Your task to perform on an android device: turn off airplane mode Image 0: 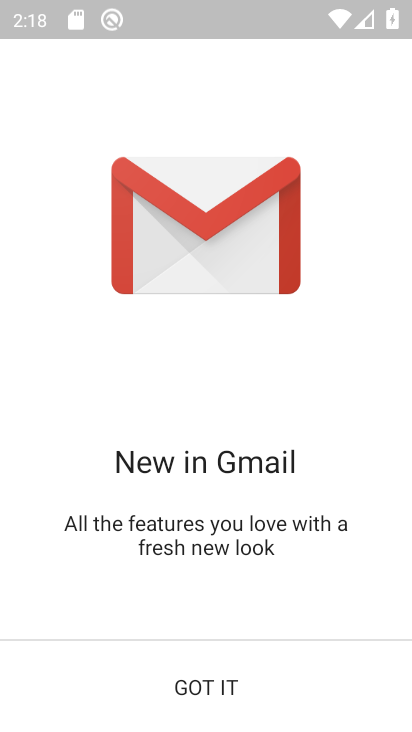
Step 0: click (194, 684)
Your task to perform on an android device: turn off airplane mode Image 1: 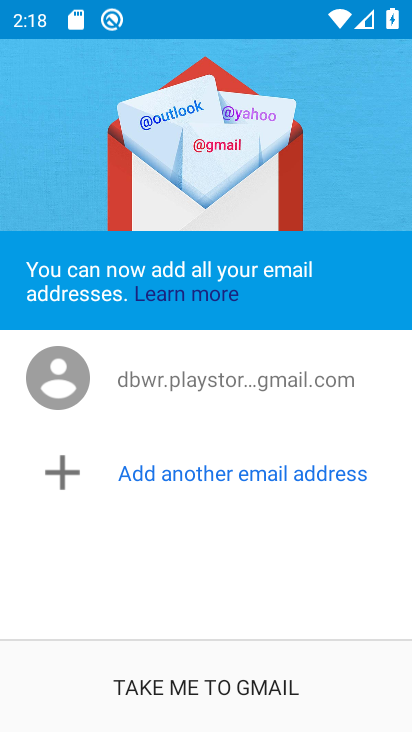
Step 1: click (194, 685)
Your task to perform on an android device: turn off airplane mode Image 2: 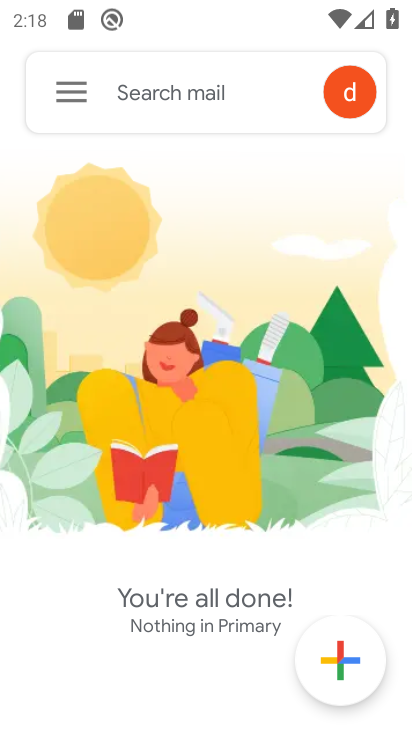
Step 2: press home button
Your task to perform on an android device: turn off airplane mode Image 3: 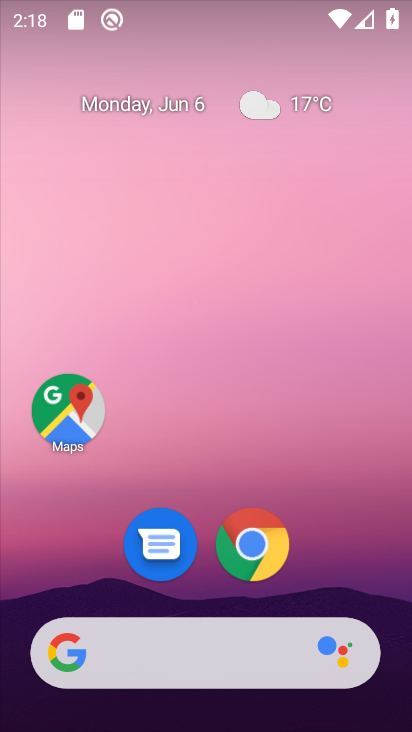
Step 3: drag from (364, 484) to (298, 63)
Your task to perform on an android device: turn off airplane mode Image 4: 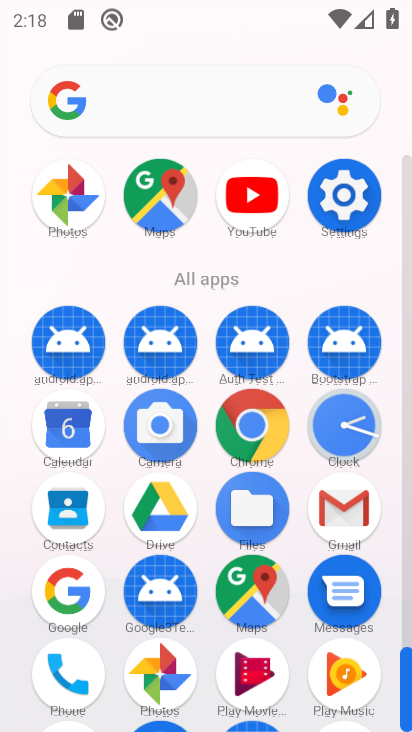
Step 4: click (347, 192)
Your task to perform on an android device: turn off airplane mode Image 5: 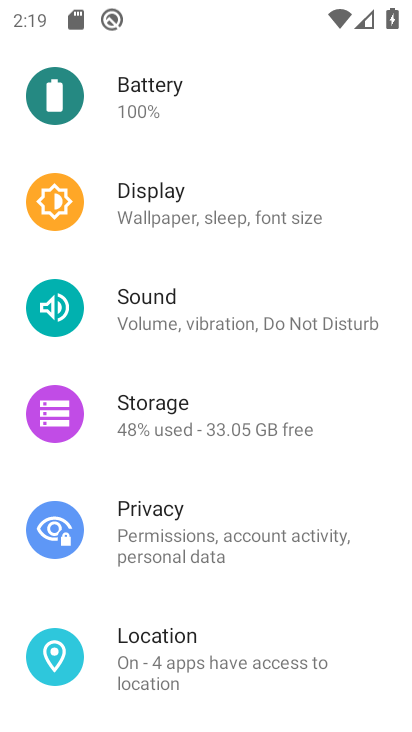
Step 5: drag from (266, 262) to (261, 686)
Your task to perform on an android device: turn off airplane mode Image 6: 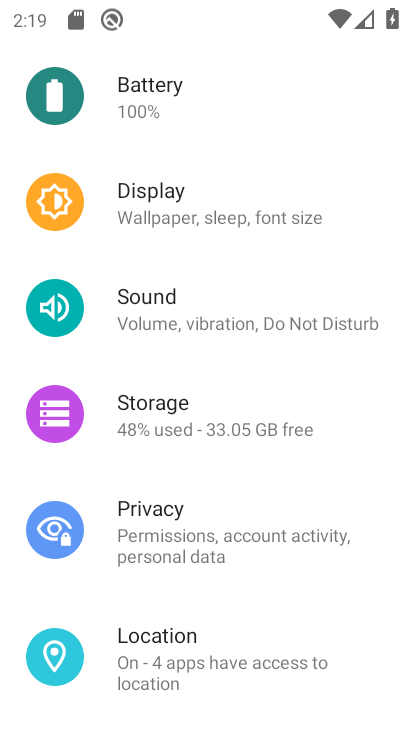
Step 6: drag from (297, 127) to (319, 660)
Your task to perform on an android device: turn off airplane mode Image 7: 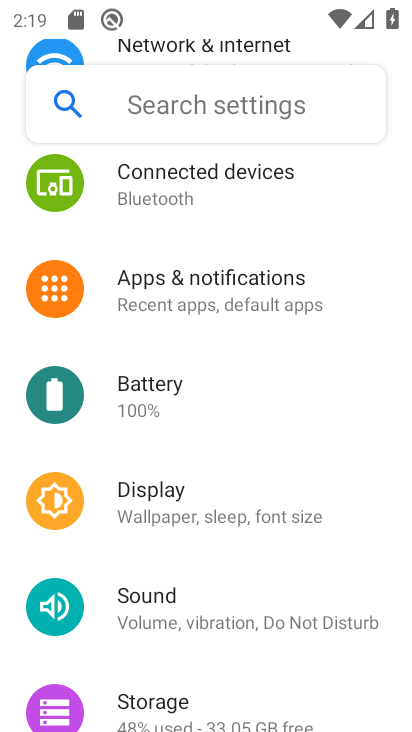
Step 7: drag from (344, 201) to (377, 670)
Your task to perform on an android device: turn off airplane mode Image 8: 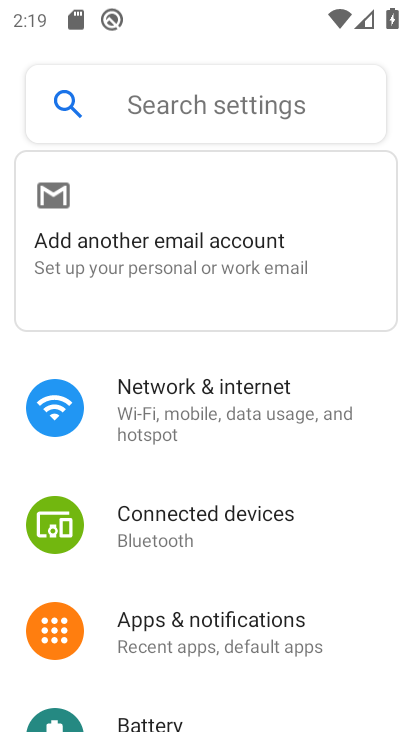
Step 8: click (199, 387)
Your task to perform on an android device: turn off airplane mode Image 9: 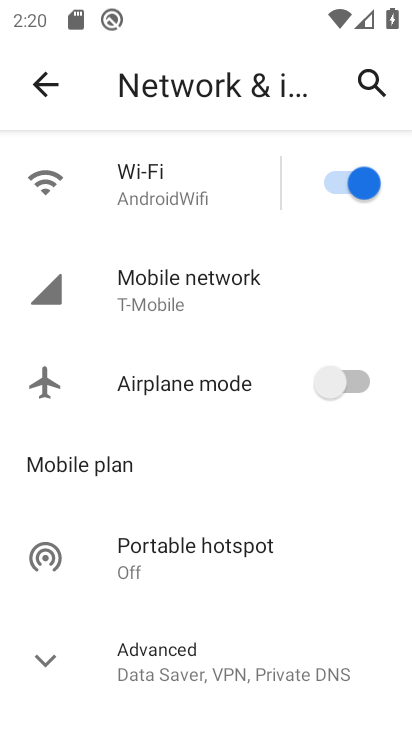
Step 9: task complete